Your task to perform on an android device: Open the map Image 0: 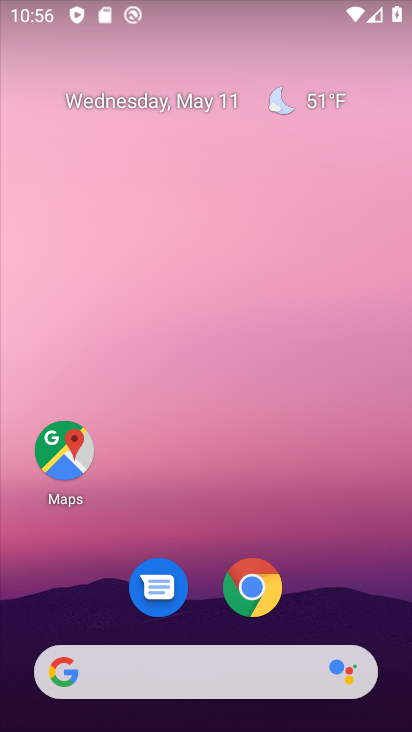
Step 0: click (57, 434)
Your task to perform on an android device: Open the map Image 1: 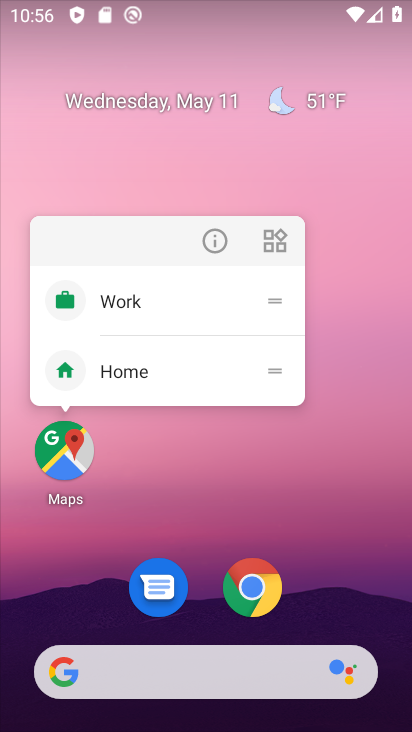
Step 1: click (53, 470)
Your task to perform on an android device: Open the map Image 2: 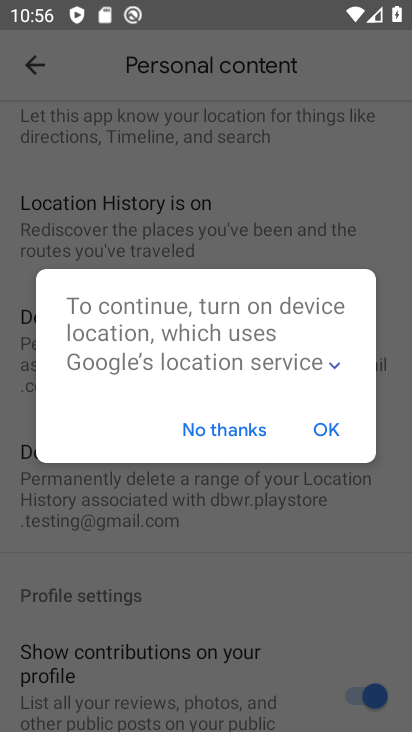
Step 2: click (313, 430)
Your task to perform on an android device: Open the map Image 3: 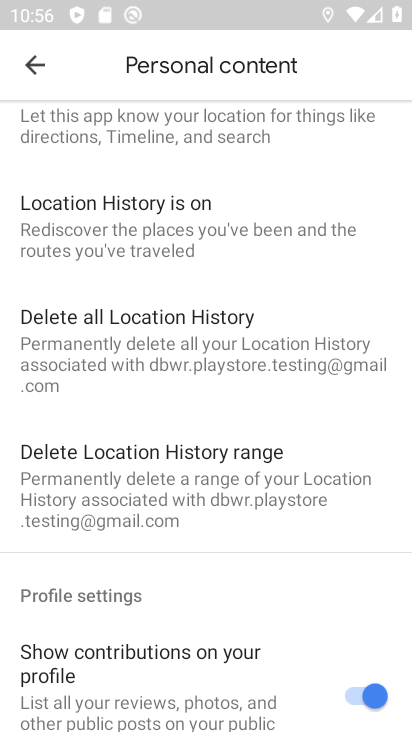
Step 3: task complete